Your task to perform on an android device: Open Chrome and go to settings Image 0: 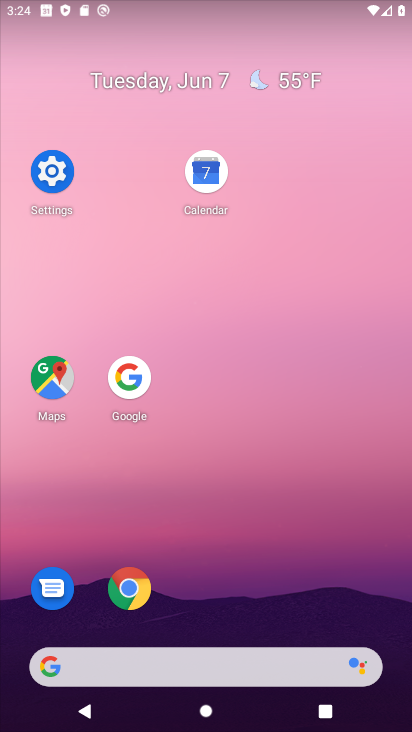
Step 0: click (136, 583)
Your task to perform on an android device: Open Chrome and go to settings Image 1: 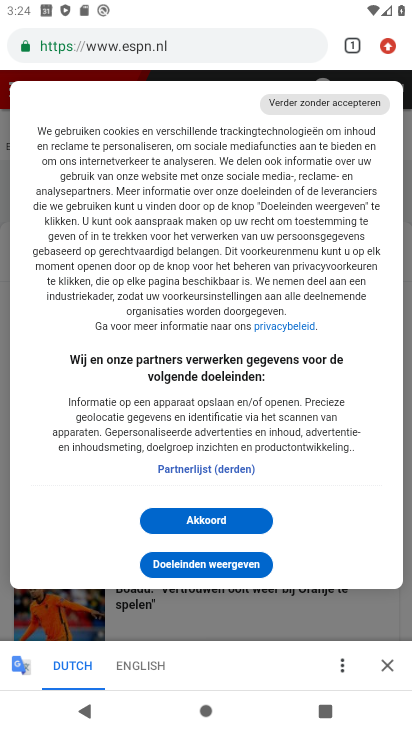
Step 1: click (386, 53)
Your task to perform on an android device: Open Chrome and go to settings Image 2: 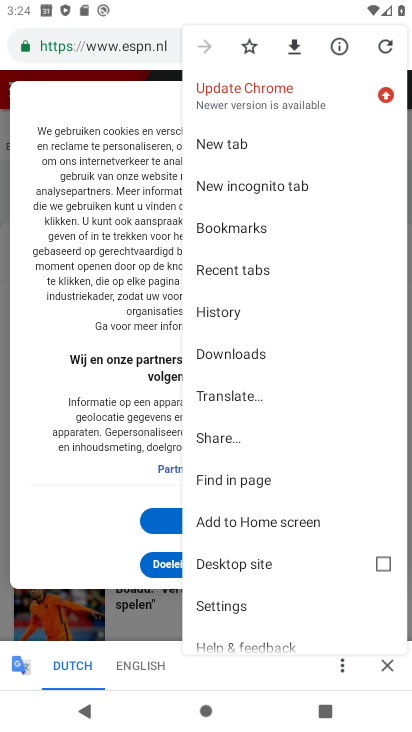
Step 2: click (264, 607)
Your task to perform on an android device: Open Chrome and go to settings Image 3: 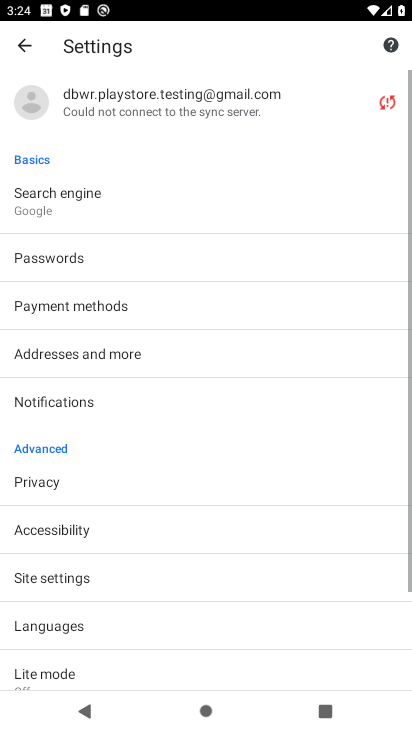
Step 3: task complete